Your task to perform on an android device: Open calendar and show me the second week of next month Image 0: 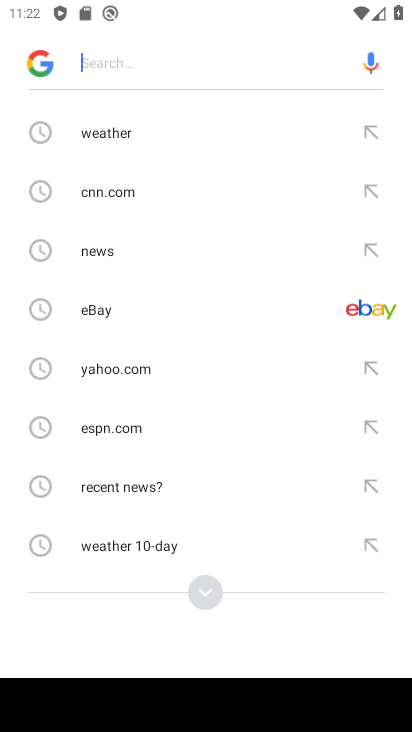
Step 0: press back button
Your task to perform on an android device: Open calendar and show me the second week of next month Image 1: 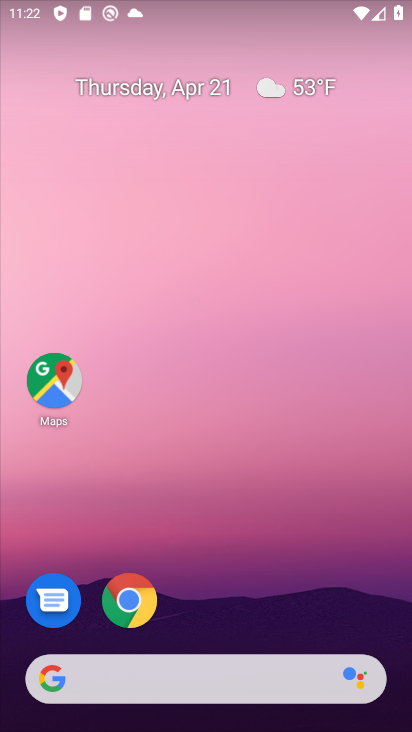
Step 1: drag from (169, 597) to (332, 133)
Your task to perform on an android device: Open calendar and show me the second week of next month Image 2: 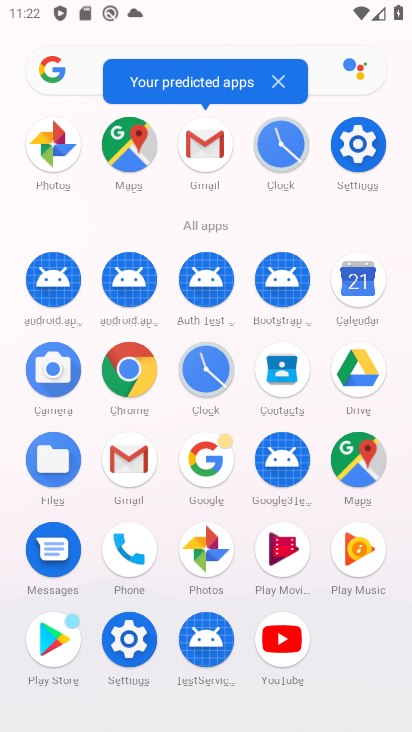
Step 2: click (358, 303)
Your task to perform on an android device: Open calendar and show me the second week of next month Image 3: 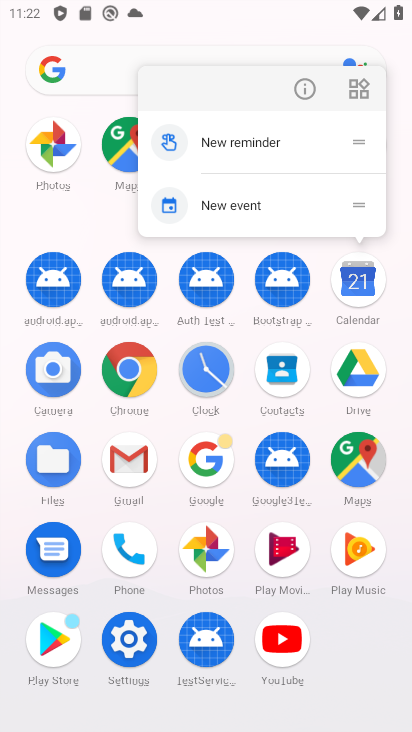
Step 3: click (349, 271)
Your task to perform on an android device: Open calendar and show me the second week of next month Image 4: 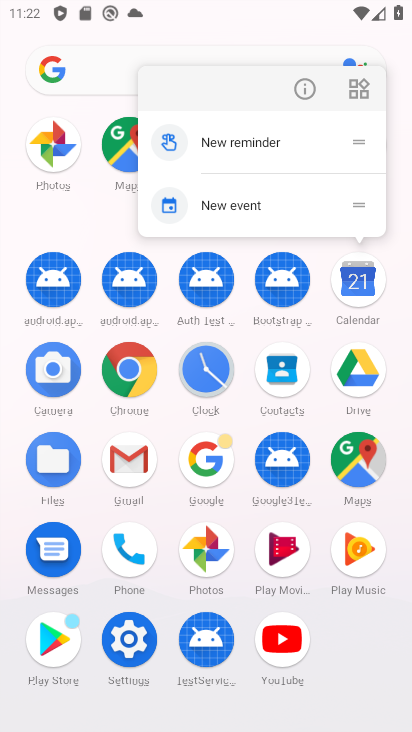
Step 4: click (362, 298)
Your task to perform on an android device: Open calendar and show me the second week of next month Image 5: 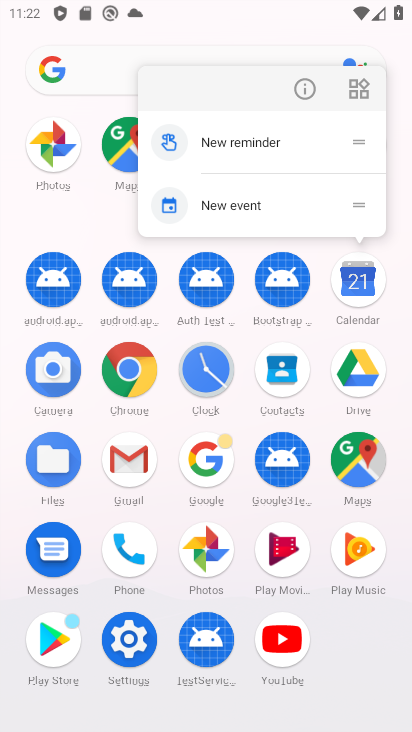
Step 5: click (359, 280)
Your task to perform on an android device: Open calendar and show me the second week of next month Image 6: 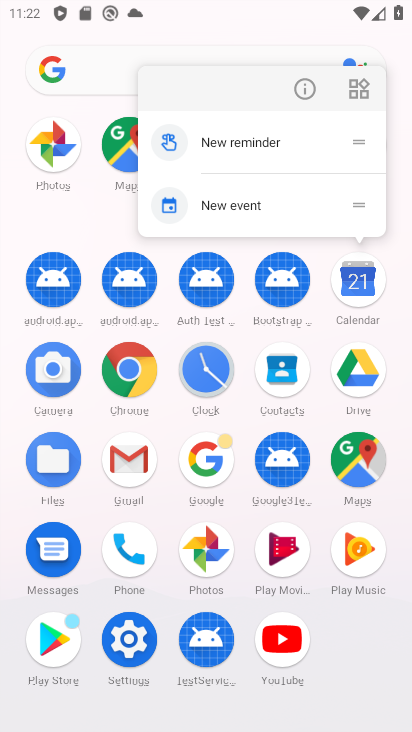
Step 6: click (361, 289)
Your task to perform on an android device: Open calendar and show me the second week of next month Image 7: 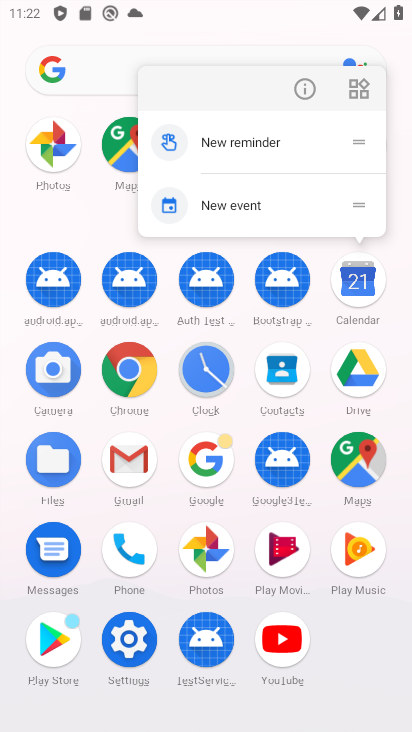
Step 7: click (361, 289)
Your task to perform on an android device: Open calendar and show me the second week of next month Image 8: 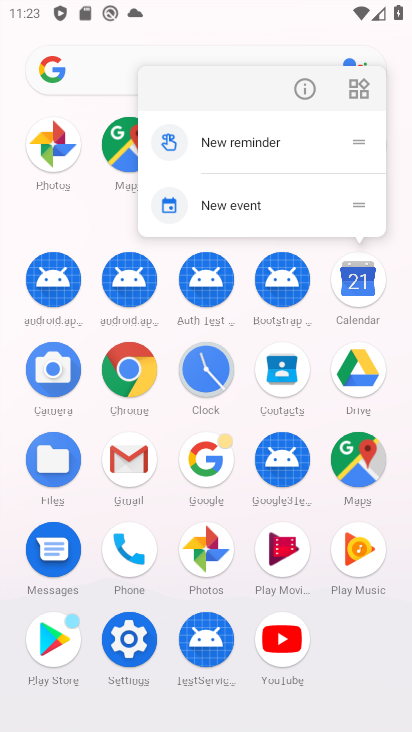
Step 8: click (364, 287)
Your task to perform on an android device: Open calendar and show me the second week of next month Image 9: 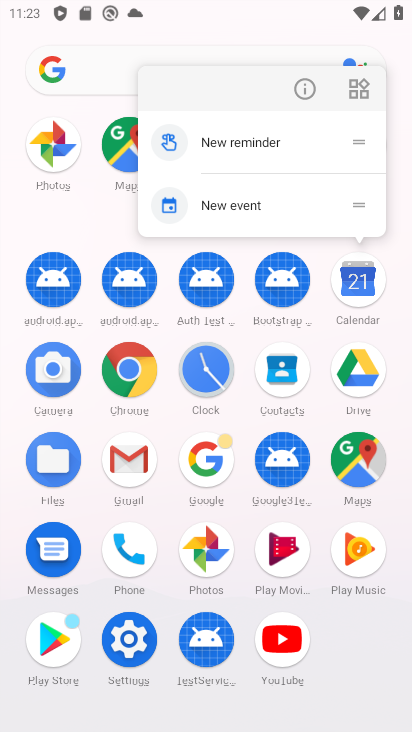
Step 9: click (381, 274)
Your task to perform on an android device: Open calendar and show me the second week of next month Image 10: 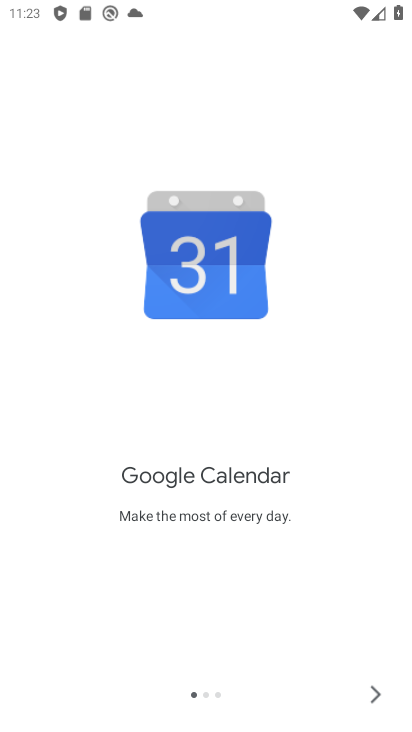
Step 10: click (377, 684)
Your task to perform on an android device: Open calendar and show me the second week of next month Image 11: 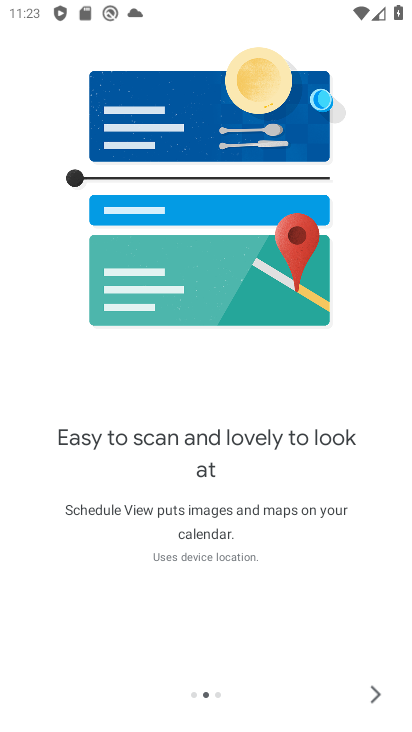
Step 11: click (382, 694)
Your task to perform on an android device: Open calendar and show me the second week of next month Image 12: 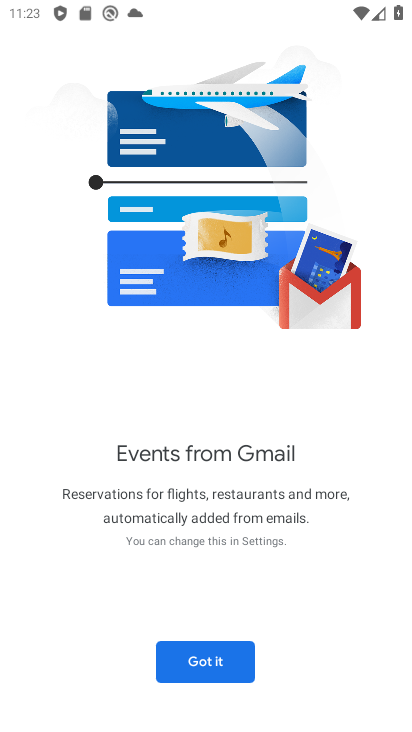
Step 12: click (222, 667)
Your task to perform on an android device: Open calendar and show me the second week of next month Image 13: 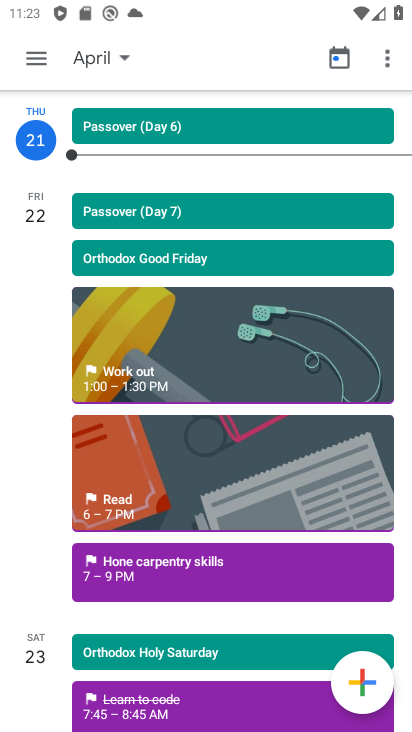
Step 13: click (40, 65)
Your task to perform on an android device: Open calendar and show me the second week of next month Image 14: 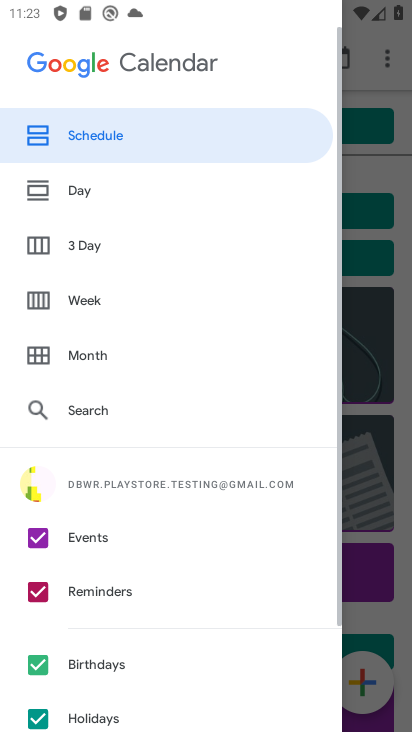
Step 14: click (109, 310)
Your task to perform on an android device: Open calendar and show me the second week of next month Image 15: 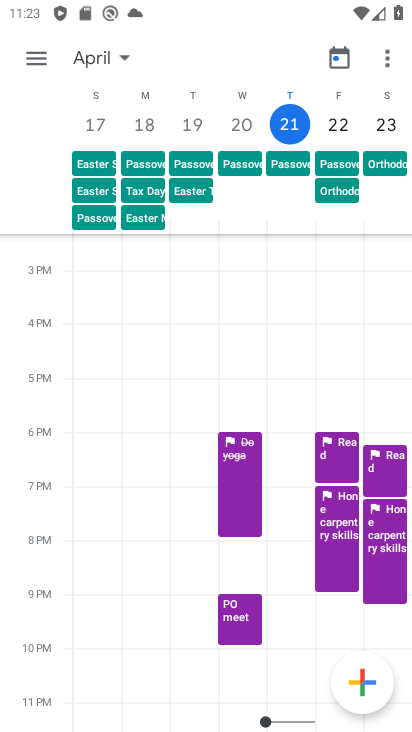
Step 15: click (109, 67)
Your task to perform on an android device: Open calendar and show me the second week of next month Image 16: 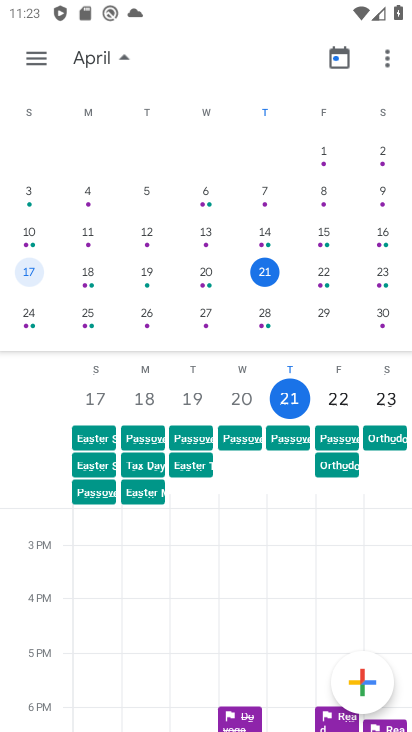
Step 16: drag from (378, 269) to (108, 255)
Your task to perform on an android device: Open calendar and show me the second week of next month Image 17: 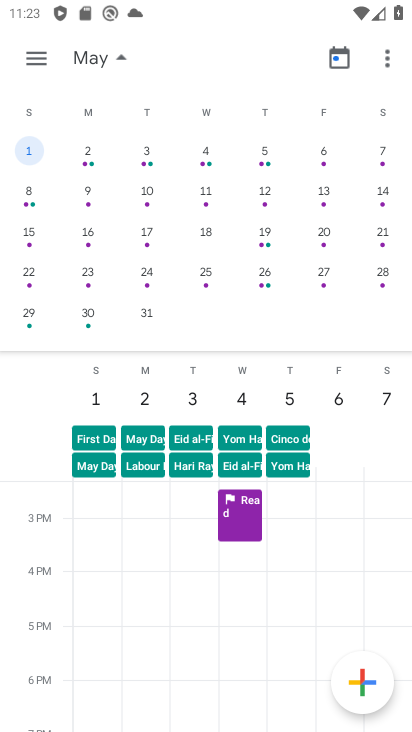
Step 17: click (31, 188)
Your task to perform on an android device: Open calendar and show me the second week of next month Image 18: 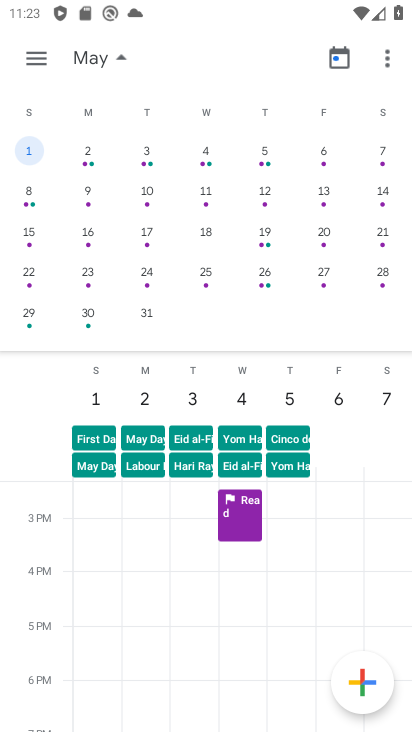
Step 18: click (30, 196)
Your task to perform on an android device: Open calendar and show me the second week of next month Image 19: 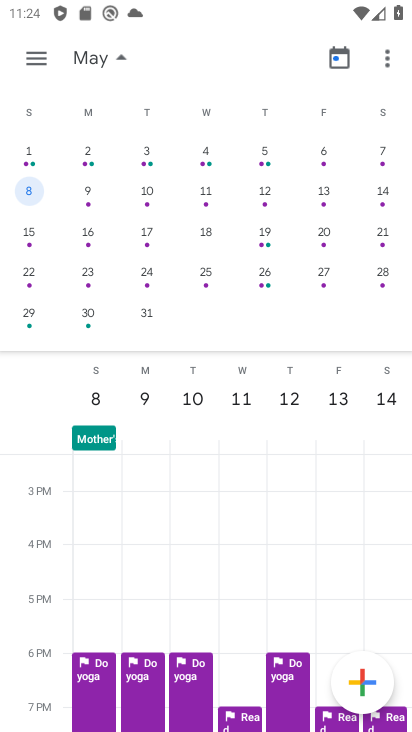
Step 19: click (37, 191)
Your task to perform on an android device: Open calendar and show me the second week of next month Image 20: 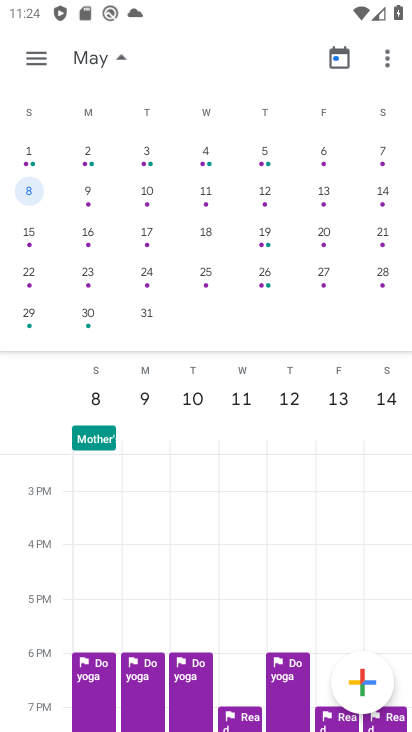
Step 20: click (129, 60)
Your task to perform on an android device: Open calendar and show me the second week of next month Image 21: 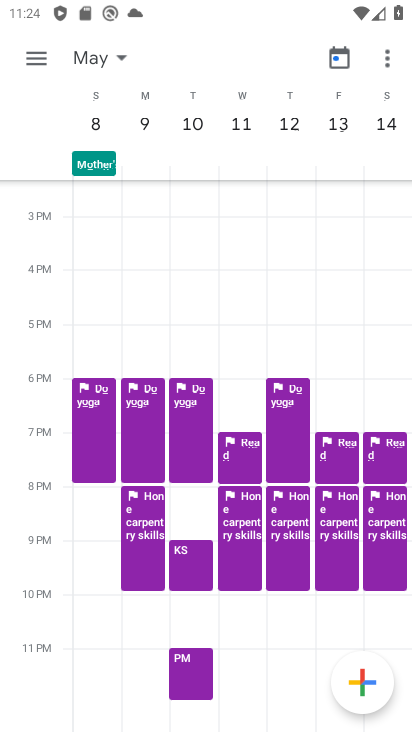
Step 21: task complete